Your task to perform on an android device: Is it going to rain this weekend? Image 0: 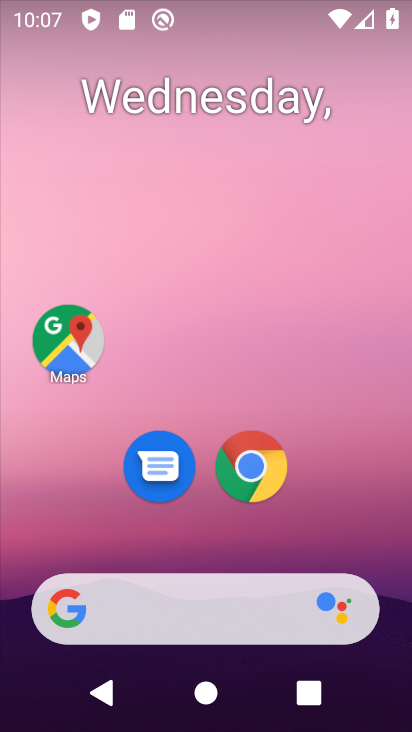
Step 0: drag from (220, 727) to (198, 130)
Your task to perform on an android device: Is it going to rain this weekend? Image 1: 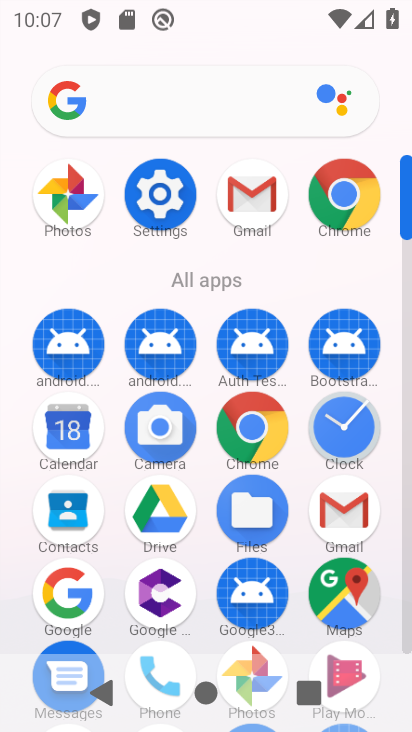
Step 1: click (67, 588)
Your task to perform on an android device: Is it going to rain this weekend? Image 2: 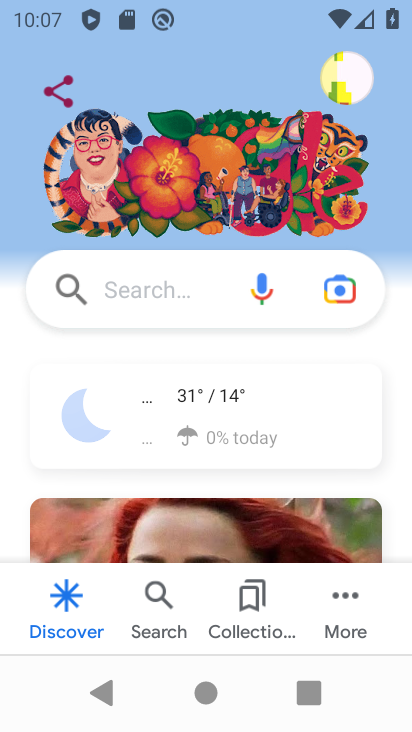
Step 2: click (196, 405)
Your task to perform on an android device: Is it going to rain this weekend? Image 3: 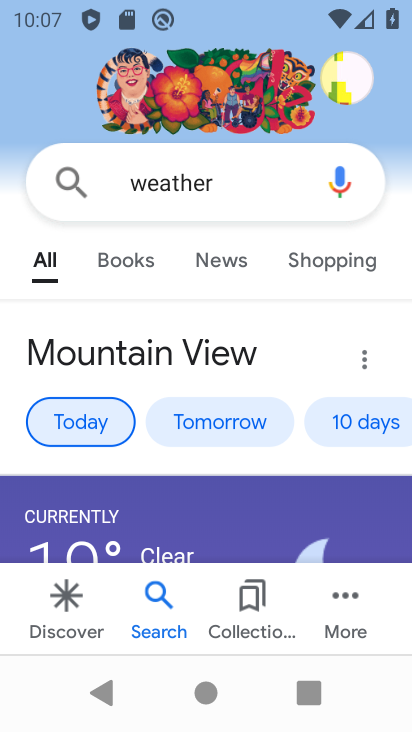
Step 3: click (349, 411)
Your task to perform on an android device: Is it going to rain this weekend? Image 4: 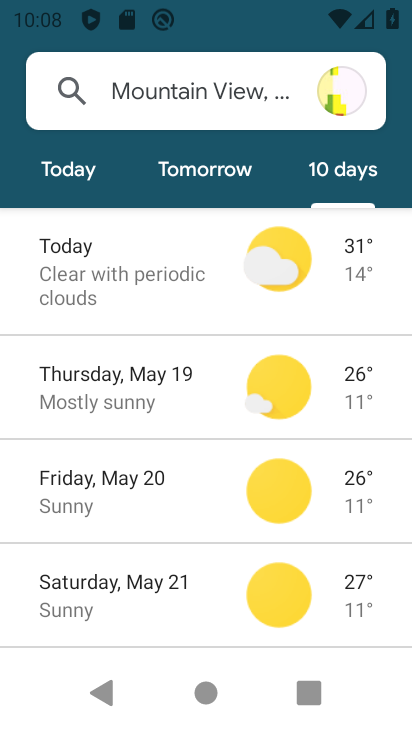
Step 4: click (99, 576)
Your task to perform on an android device: Is it going to rain this weekend? Image 5: 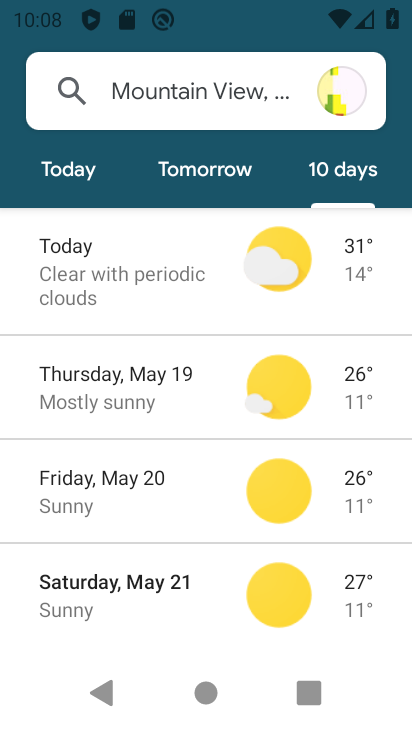
Step 5: task complete